Your task to perform on an android device: all mails in gmail Image 0: 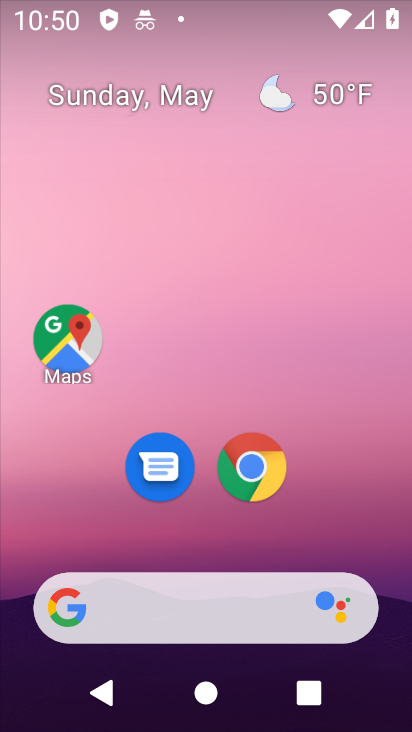
Step 0: drag from (151, 569) to (238, 216)
Your task to perform on an android device: all mails in gmail Image 1: 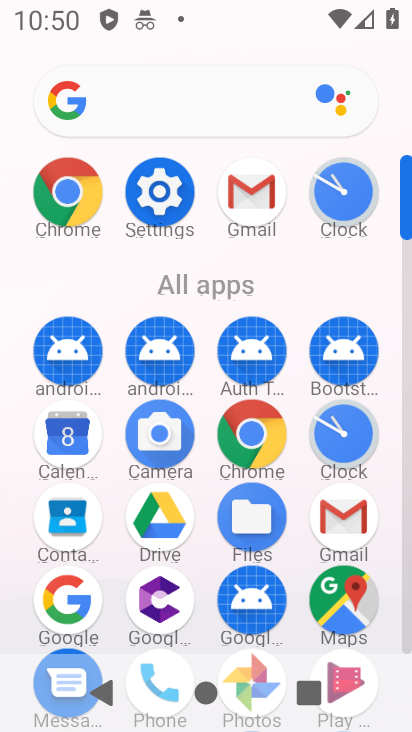
Step 1: click (339, 537)
Your task to perform on an android device: all mails in gmail Image 2: 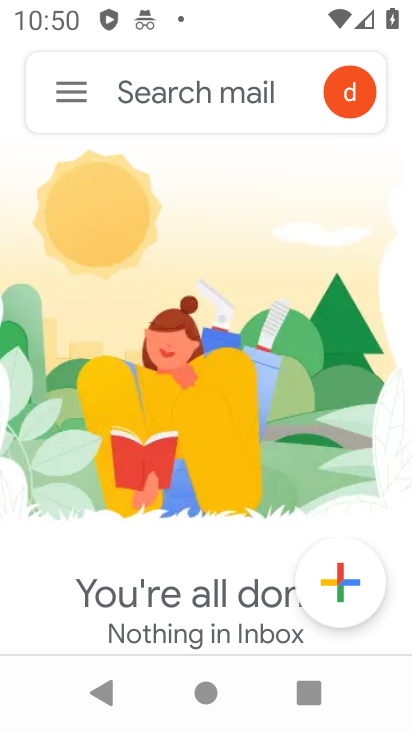
Step 2: click (70, 92)
Your task to perform on an android device: all mails in gmail Image 3: 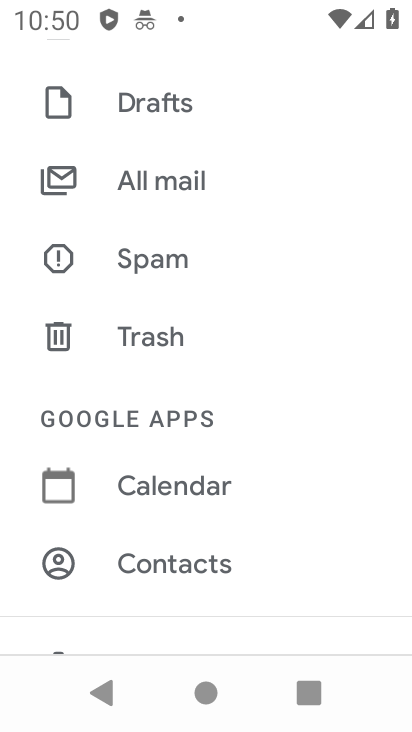
Step 3: click (252, 171)
Your task to perform on an android device: all mails in gmail Image 4: 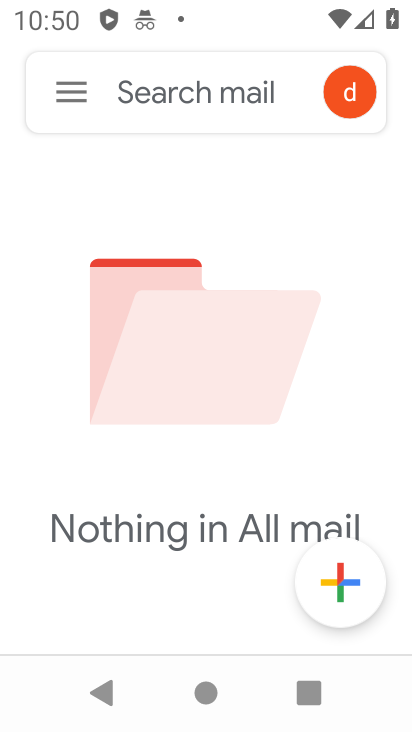
Step 4: task complete